Your task to perform on an android device: check out phone information Image 0: 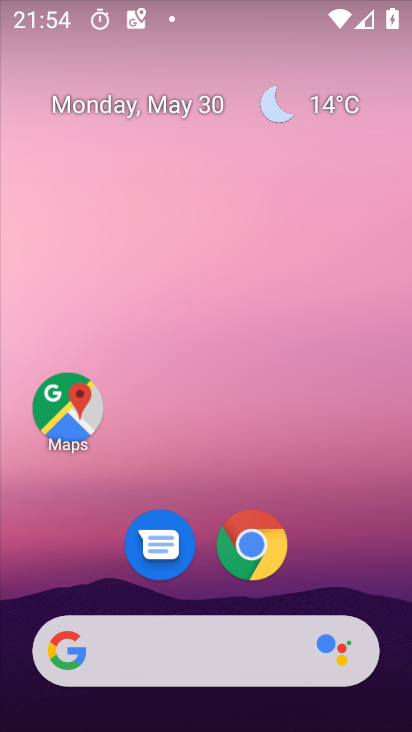
Step 0: drag from (330, 562) to (329, 156)
Your task to perform on an android device: check out phone information Image 1: 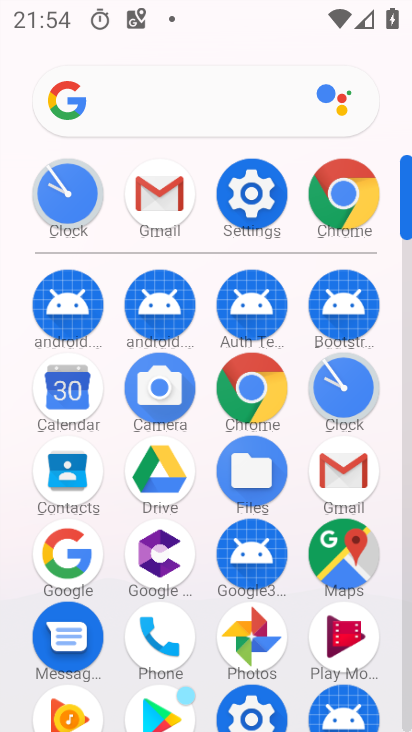
Step 1: click (259, 205)
Your task to perform on an android device: check out phone information Image 2: 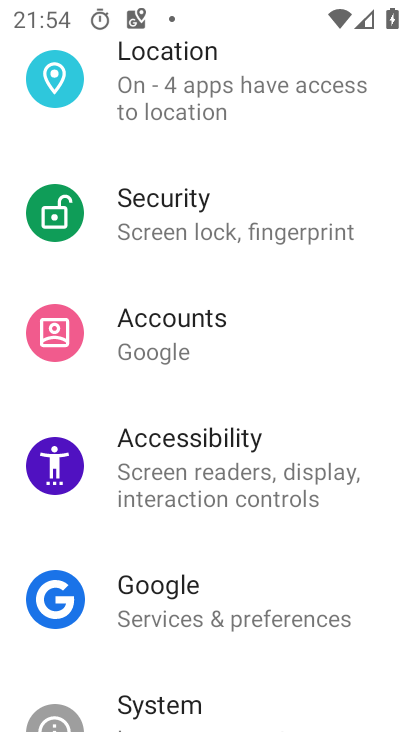
Step 2: drag from (245, 674) to (270, 236)
Your task to perform on an android device: check out phone information Image 3: 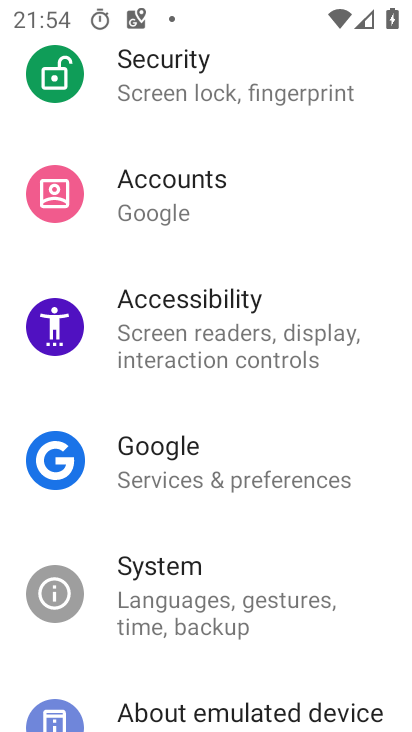
Step 3: drag from (261, 649) to (288, 236)
Your task to perform on an android device: check out phone information Image 4: 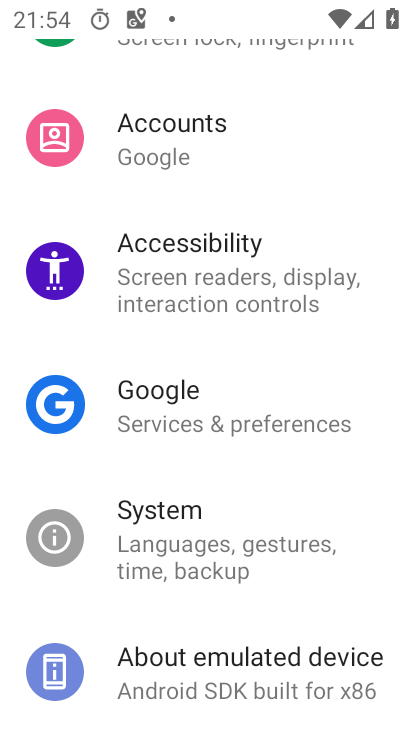
Step 4: click (216, 665)
Your task to perform on an android device: check out phone information Image 5: 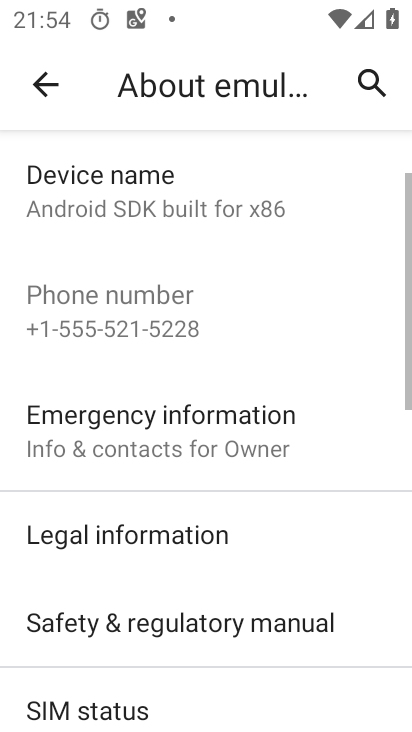
Step 5: drag from (254, 704) to (356, 155)
Your task to perform on an android device: check out phone information Image 6: 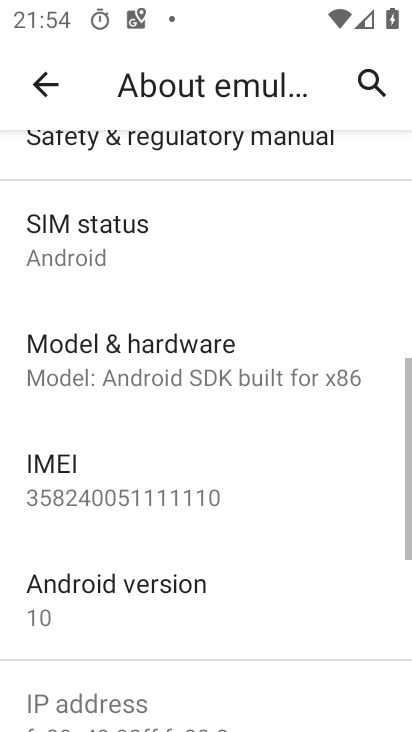
Step 6: click (186, 371)
Your task to perform on an android device: check out phone information Image 7: 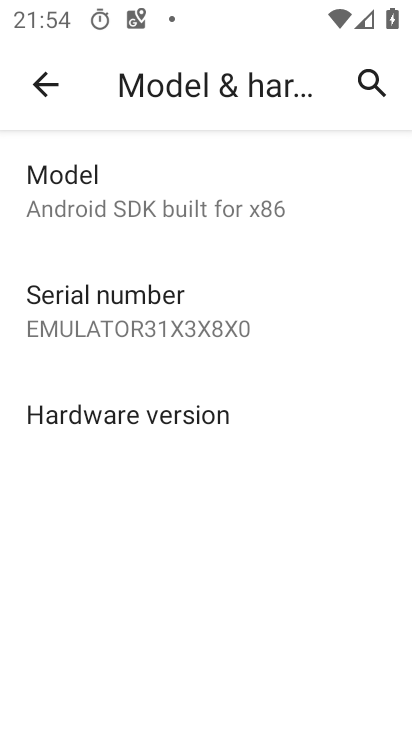
Step 7: task complete